Your task to perform on an android device: Open Chrome and go to settings Image 0: 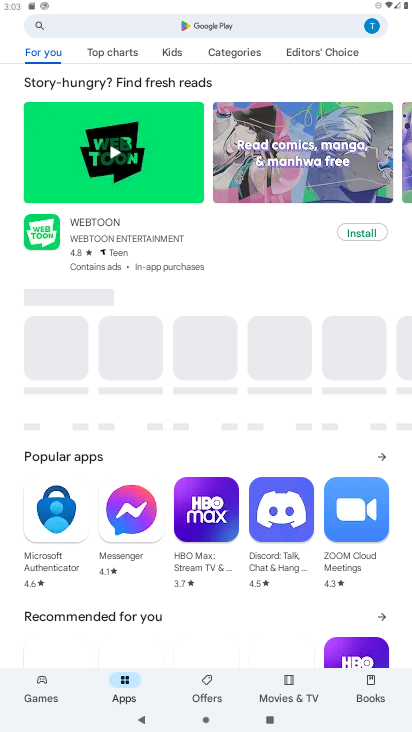
Step 0: press home button
Your task to perform on an android device: Open Chrome and go to settings Image 1: 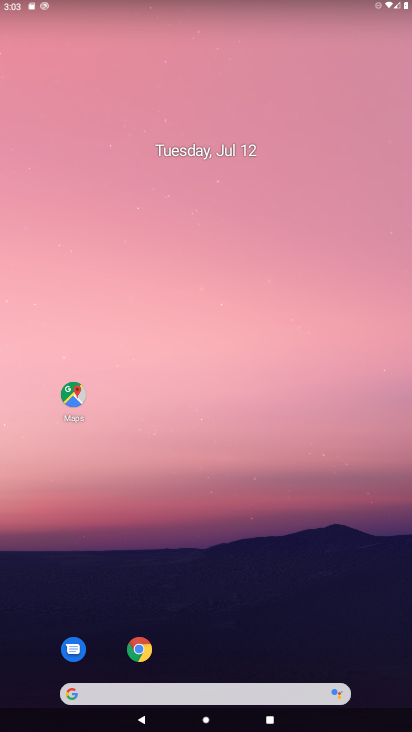
Step 1: click (150, 666)
Your task to perform on an android device: Open Chrome and go to settings Image 2: 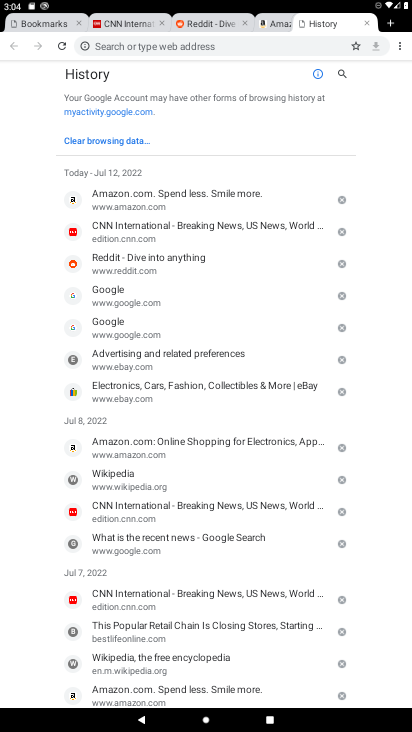
Step 2: click (403, 44)
Your task to perform on an android device: Open Chrome and go to settings Image 3: 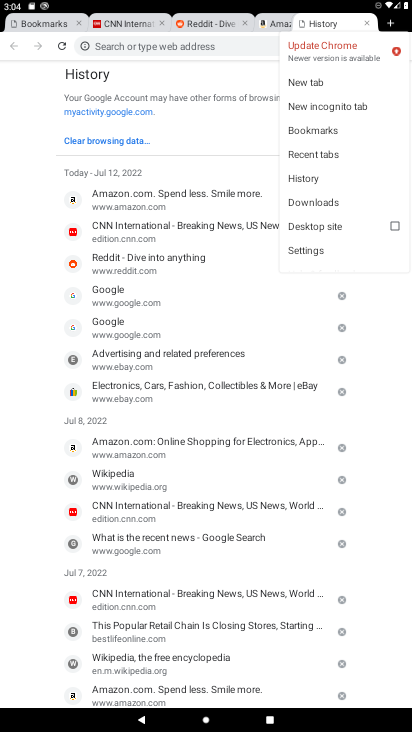
Step 3: click (318, 248)
Your task to perform on an android device: Open Chrome and go to settings Image 4: 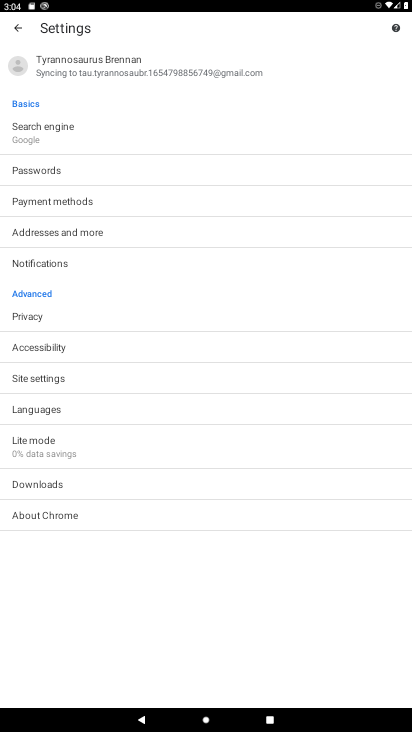
Step 4: click (20, 35)
Your task to perform on an android device: Open Chrome and go to settings Image 5: 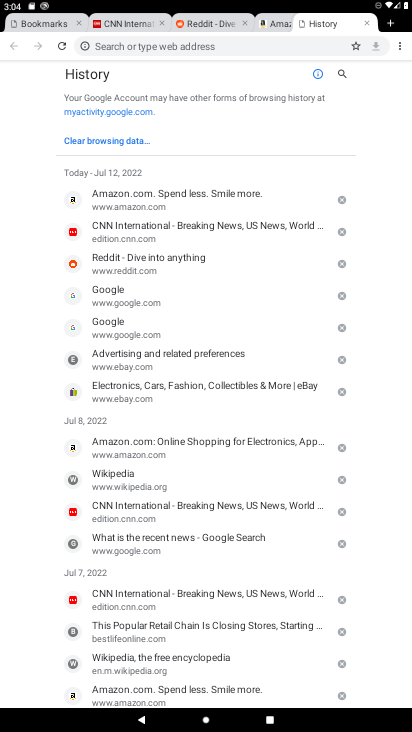
Step 5: click (403, 45)
Your task to perform on an android device: Open Chrome and go to settings Image 6: 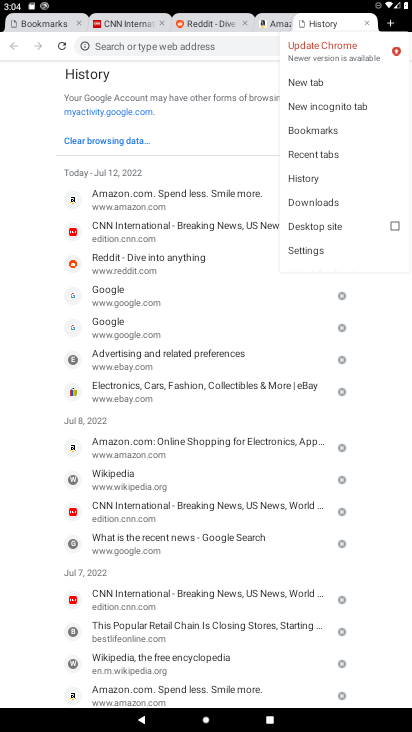
Step 6: click (308, 246)
Your task to perform on an android device: Open Chrome and go to settings Image 7: 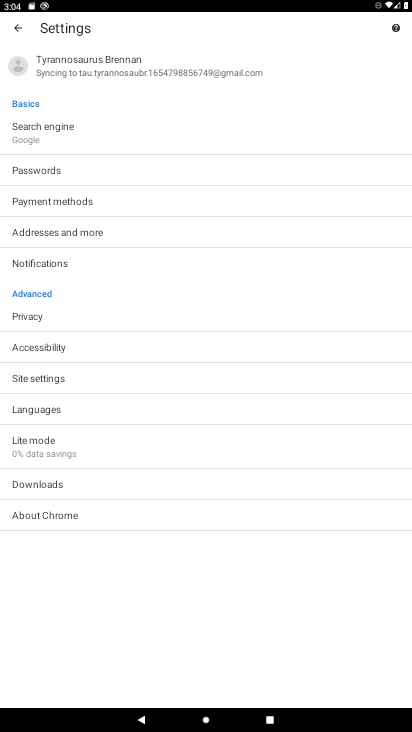
Step 7: task complete